Your task to perform on an android device: turn on showing notifications on the lock screen Image 0: 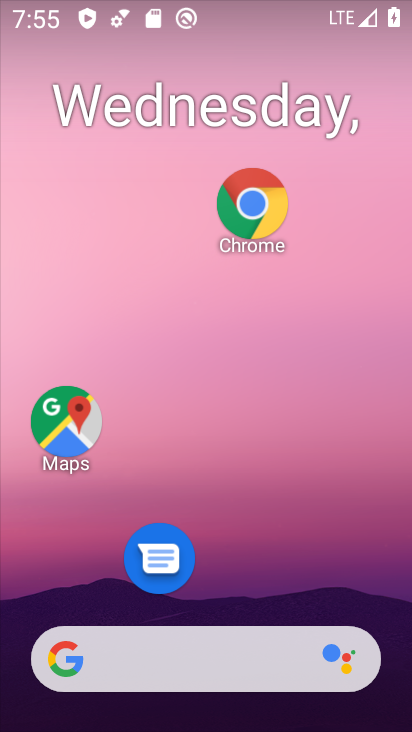
Step 0: drag from (221, 599) to (172, 109)
Your task to perform on an android device: turn on showing notifications on the lock screen Image 1: 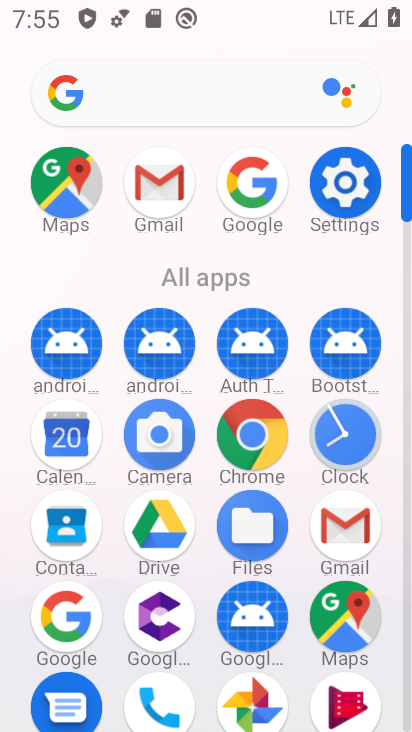
Step 1: click (338, 177)
Your task to perform on an android device: turn on showing notifications on the lock screen Image 2: 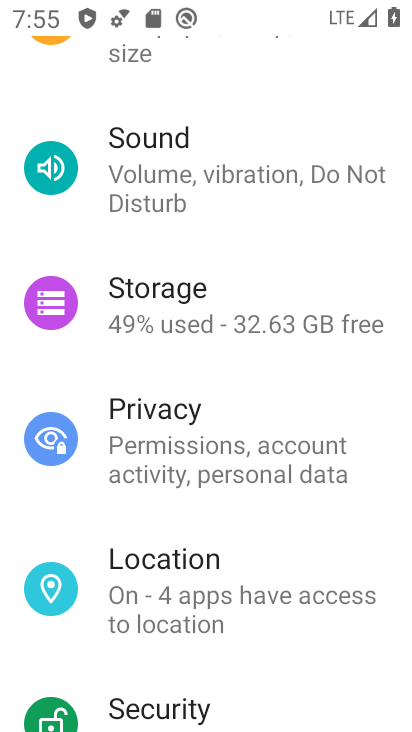
Step 2: drag from (203, 99) to (219, 680)
Your task to perform on an android device: turn on showing notifications on the lock screen Image 3: 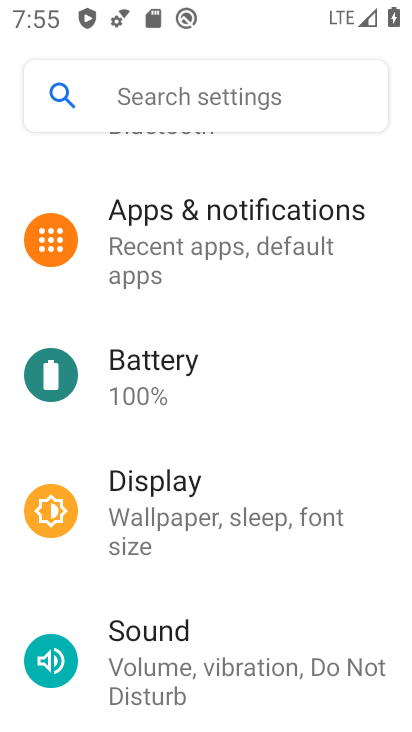
Step 3: click (216, 243)
Your task to perform on an android device: turn on showing notifications on the lock screen Image 4: 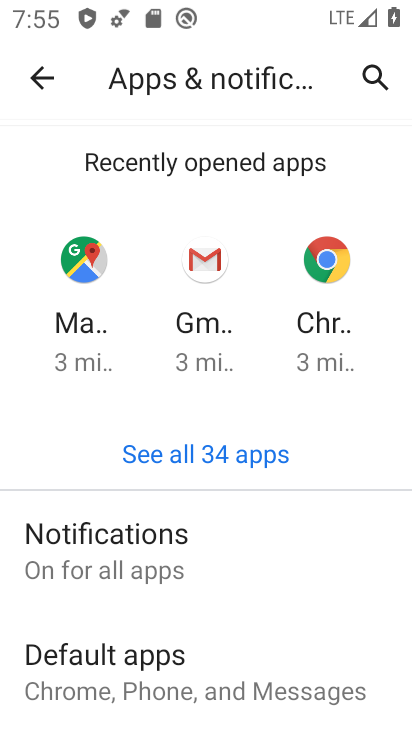
Step 4: click (198, 545)
Your task to perform on an android device: turn on showing notifications on the lock screen Image 5: 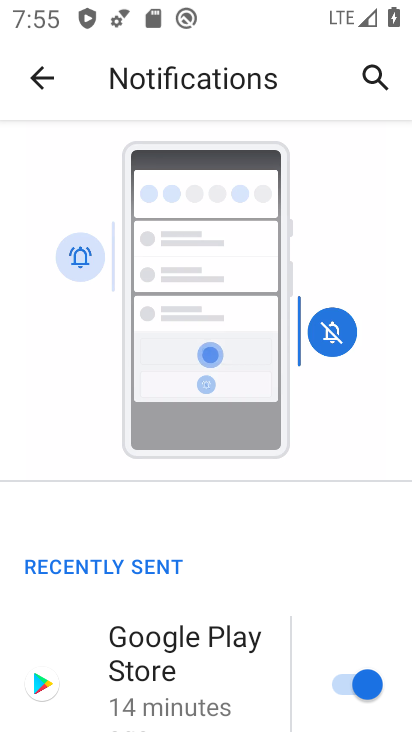
Step 5: drag from (239, 654) to (258, 207)
Your task to perform on an android device: turn on showing notifications on the lock screen Image 6: 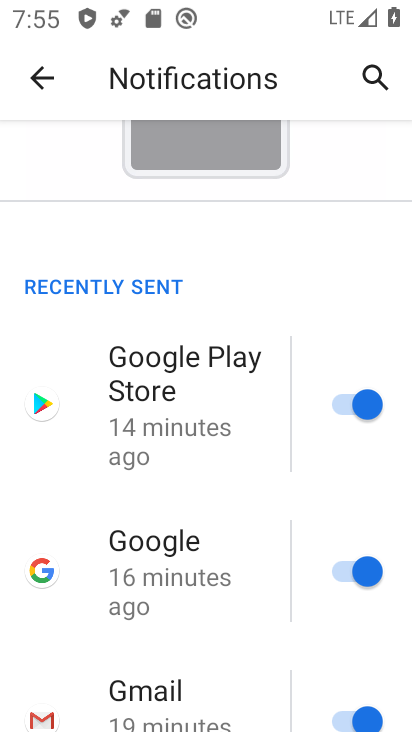
Step 6: drag from (223, 683) to (260, 161)
Your task to perform on an android device: turn on showing notifications on the lock screen Image 7: 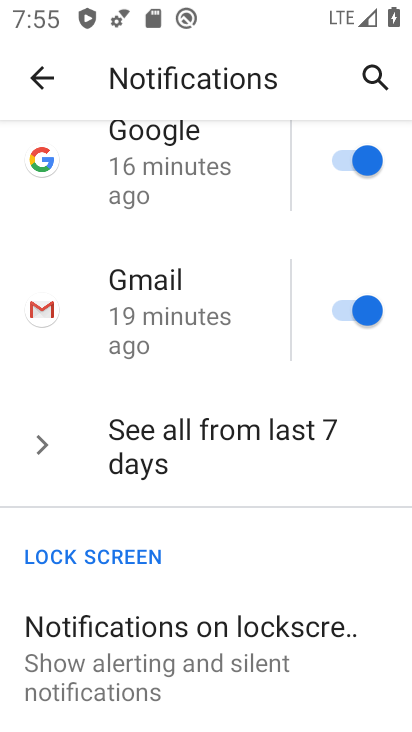
Step 7: click (309, 650)
Your task to perform on an android device: turn on showing notifications on the lock screen Image 8: 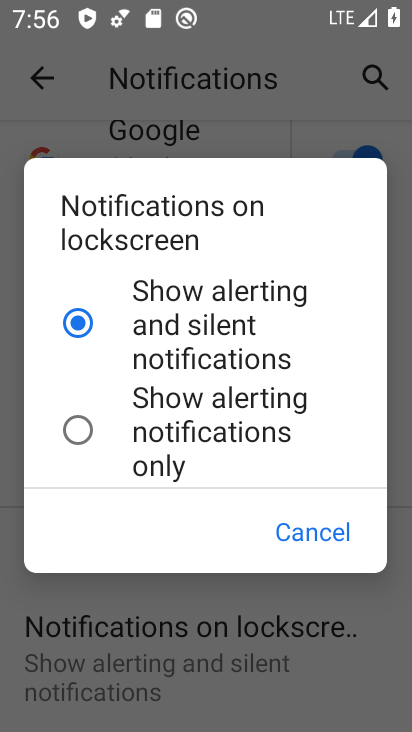
Step 8: click (72, 431)
Your task to perform on an android device: turn on showing notifications on the lock screen Image 9: 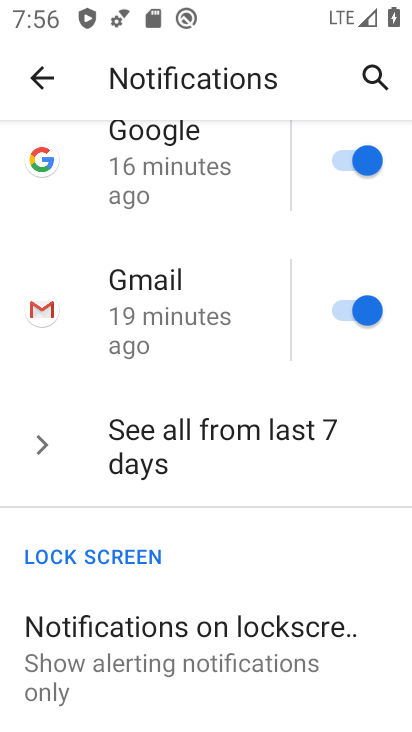
Step 9: task complete